Your task to perform on an android device: Turn on the flashlight Image 0: 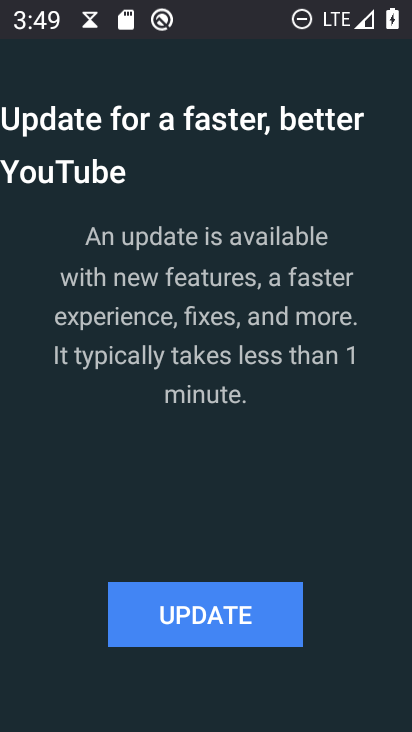
Step 0: press home button
Your task to perform on an android device: Turn on the flashlight Image 1: 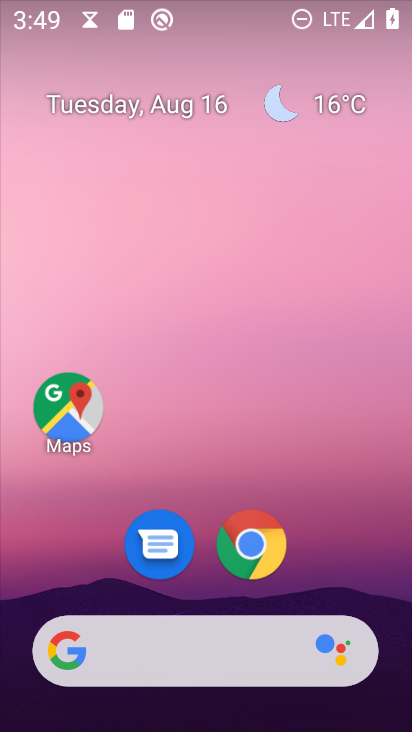
Step 1: drag from (178, 658) to (209, 96)
Your task to perform on an android device: Turn on the flashlight Image 2: 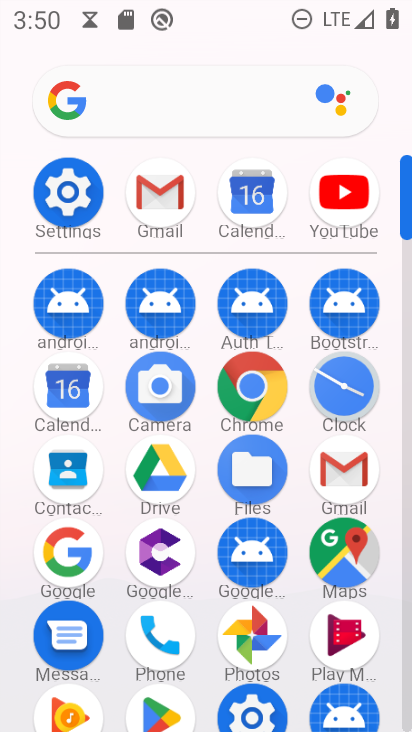
Step 2: click (68, 189)
Your task to perform on an android device: Turn on the flashlight Image 3: 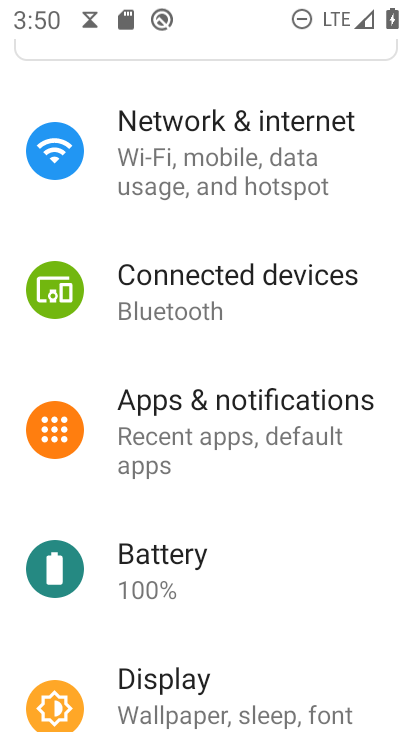
Step 3: drag from (213, 247) to (222, 399)
Your task to perform on an android device: Turn on the flashlight Image 4: 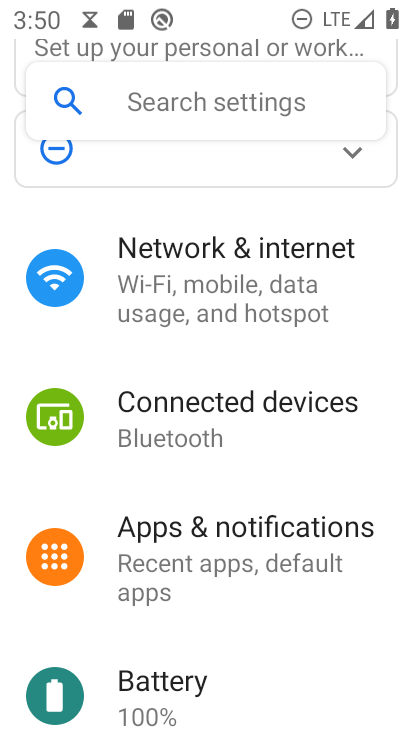
Step 4: drag from (193, 652) to (220, 545)
Your task to perform on an android device: Turn on the flashlight Image 5: 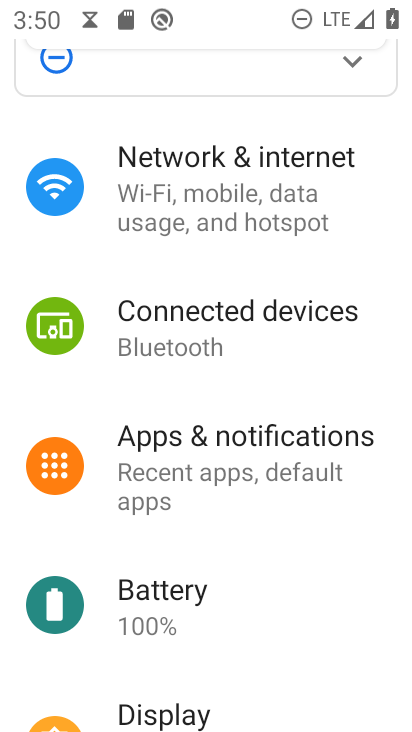
Step 5: drag from (220, 598) to (267, 457)
Your task to perform on an android device: Turn on the flashlight Image 6: 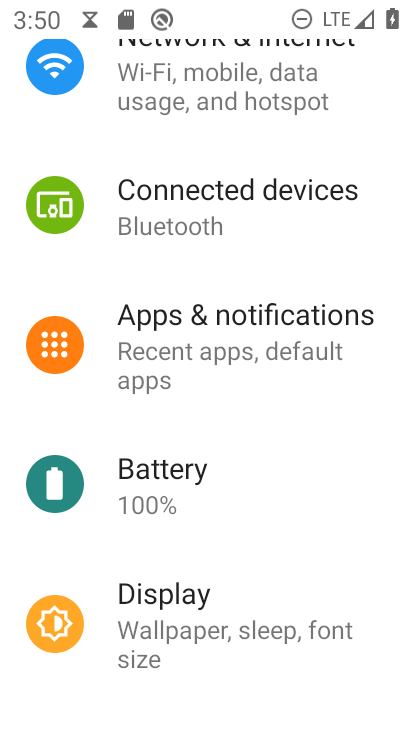
Step 6: drag from (268, 602) to (254, 444)
Your task to perform on an android device: Turn on the flashlight Image 7: 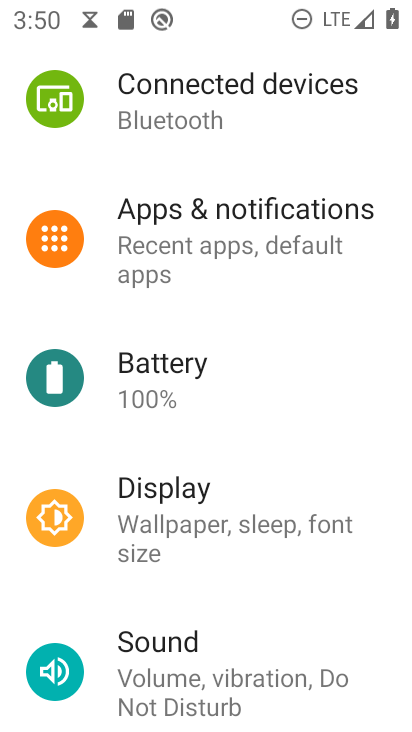
Step 7: click (240, 522)
Your task to perform on an android device: Turn on the flashlight Image 8: 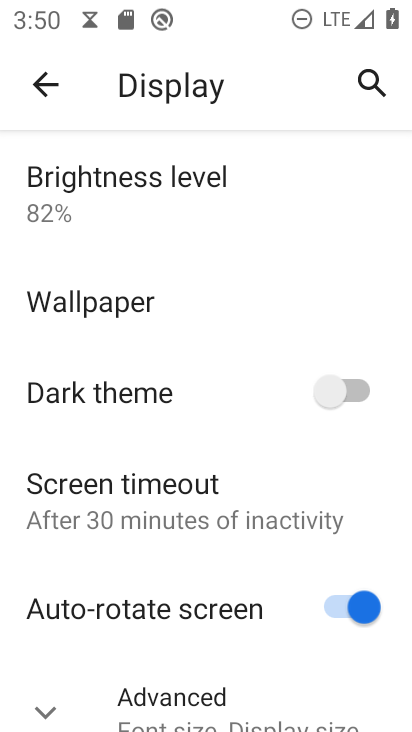
Step 8: drag from (175, 435) to (217, 280)
Your task to perform on an android device: Turn on the flashlight Image 9: 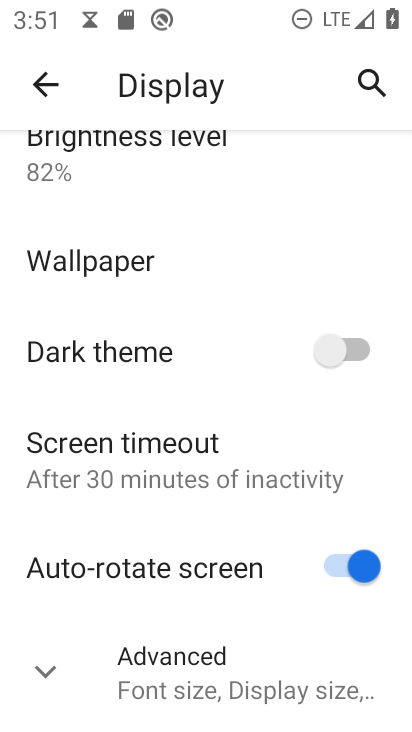
Step 9: click (146, 484)
Your task to perform on an android device: Turn on the flashlight Image 10: 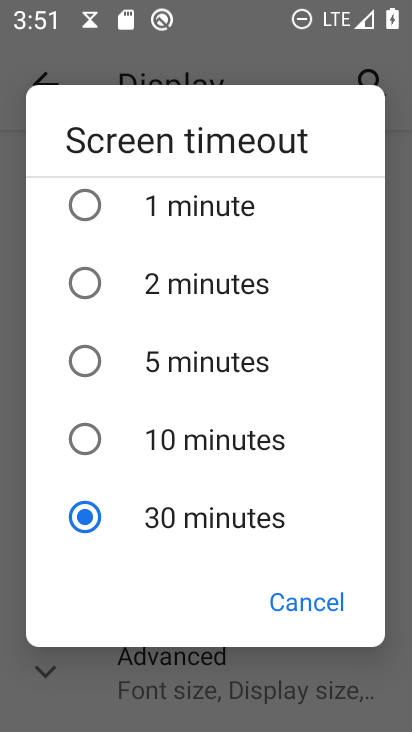
Step 10: drag from (179, 253) to (225, 589)
Your task to perform on an android device: Turn on the flashlight Image 11: 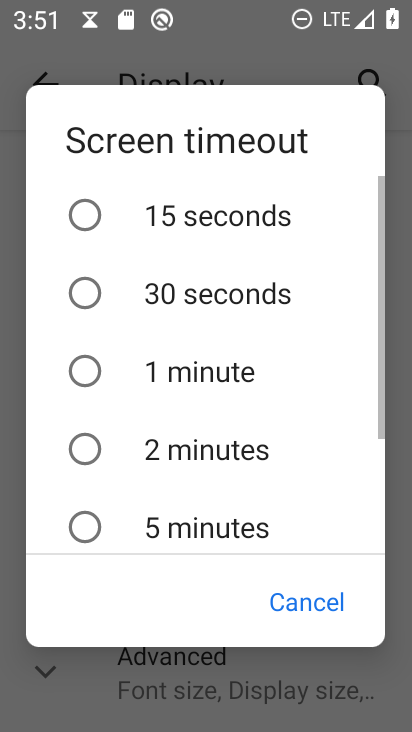
Step 11: drag from (256, 514) to (301, 231)
Your task to perform on an android device: Turn on the flashlight Image 12: 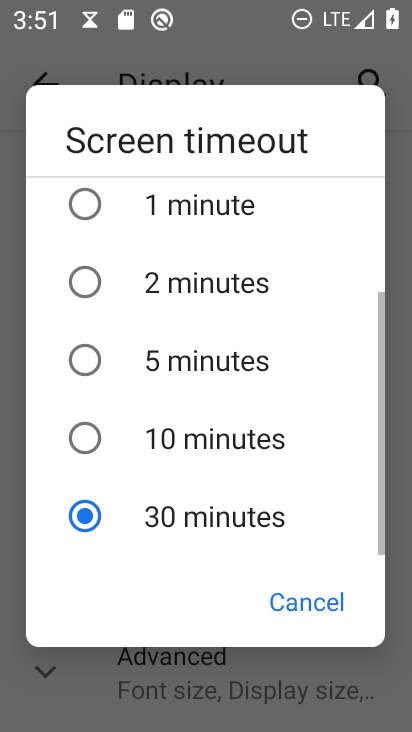
Step 12: click (294, 612)
Your task to perform on an android device: Turn on the flashlight Image 13: 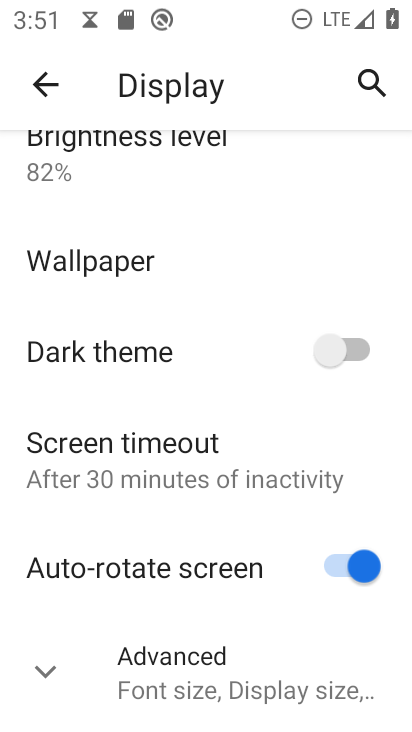
Step 13: click (371, 79)
Your task to perform on an android device: Turn on the flashlight Image 14: 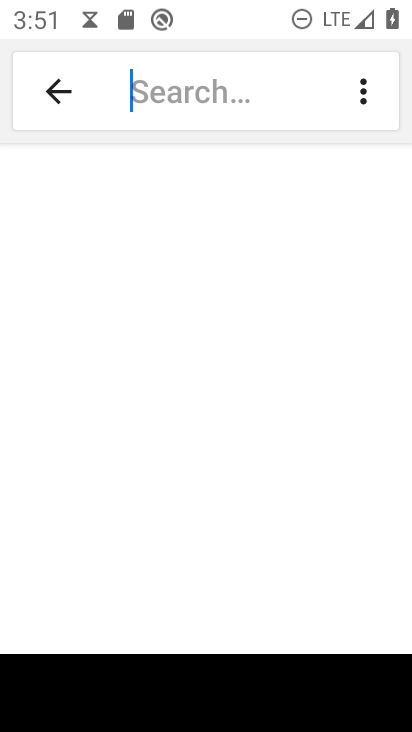
Step 14: click (235, 82)
Your task to perform on an android device: Turn on the flashlight Image 15: 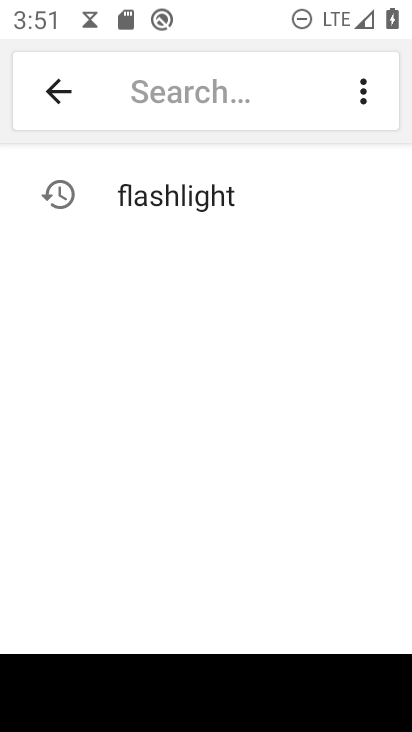
Step 15: type "flaslight"
Your task to perform on an android device: Turn on the flashlight Image 16: 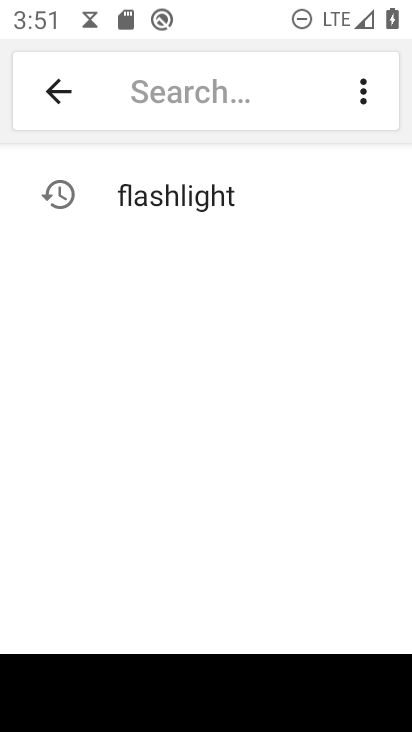
Step 16: click (153, 193)
Your task to perform on an android device: Turn on the flashlight Image 17: 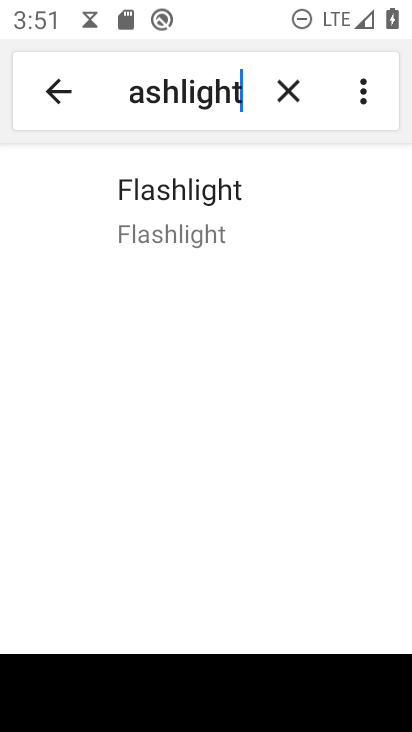
Step 17: task complete